Your task to perform on an android device: Open accessibility settings Image 0: 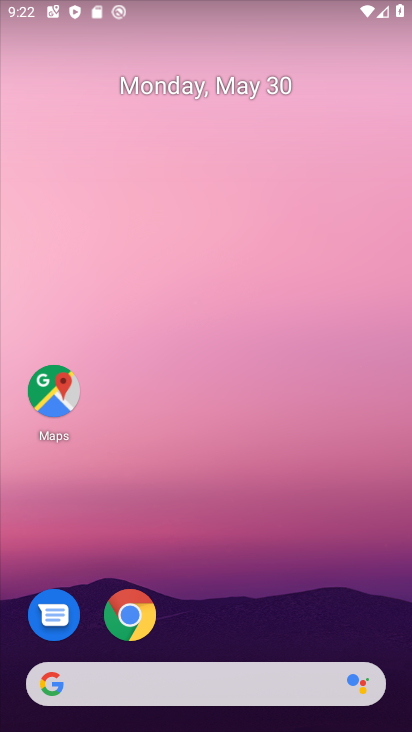
Step 0: drag from (273, 429) to (209, 8)
Your task to perform on an android device: Open accessibility settings Image 1: 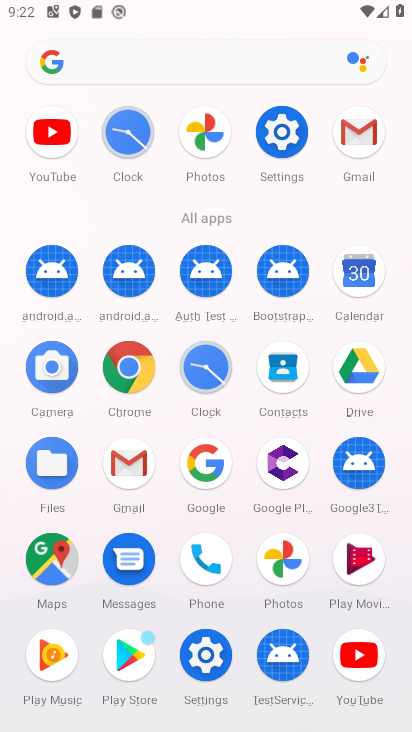
Step 1: click (291, 143)
Your task to perform on an android device: Open accessibility settings Image 2: 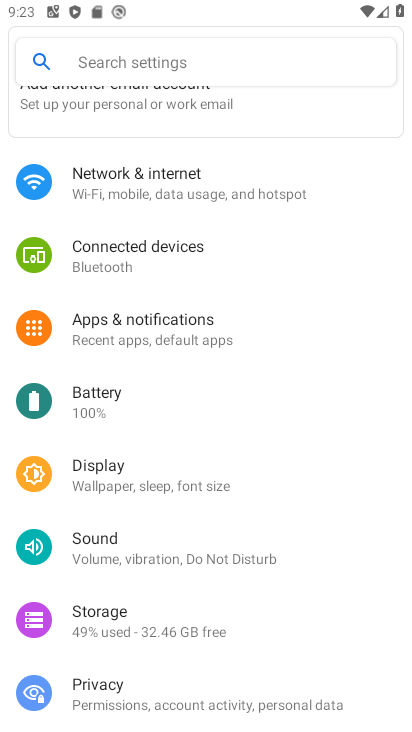
Step 2: drag from (269, 504) to (266, 231)
Your task to perform on an android device: Open accessibility settings Image 3: 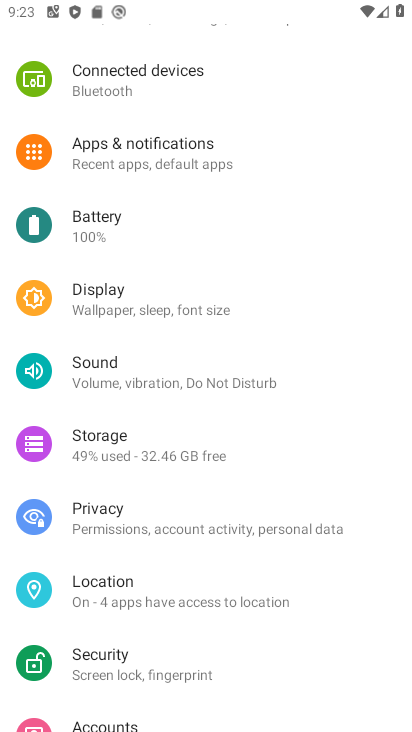
Step 3: drag from (184, 529) to (189, 176)
Your task to perform on an android device: Open accessibility settings Image 4: 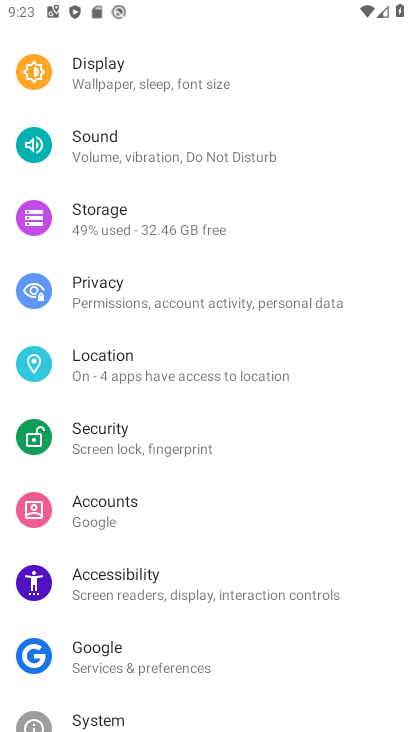
Step 4: click (167, 561)
Your task to perform on an android device: Open accessibility settings Image 5: 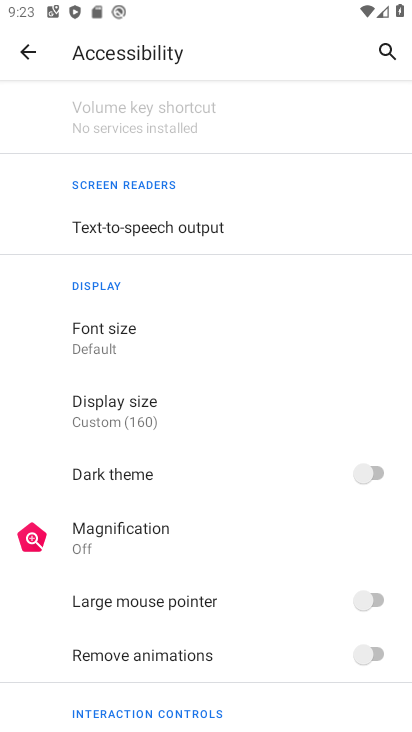
Step 5: task complete